Your task to perform on an android device: turn on the 24-hour format for clock Image 0: 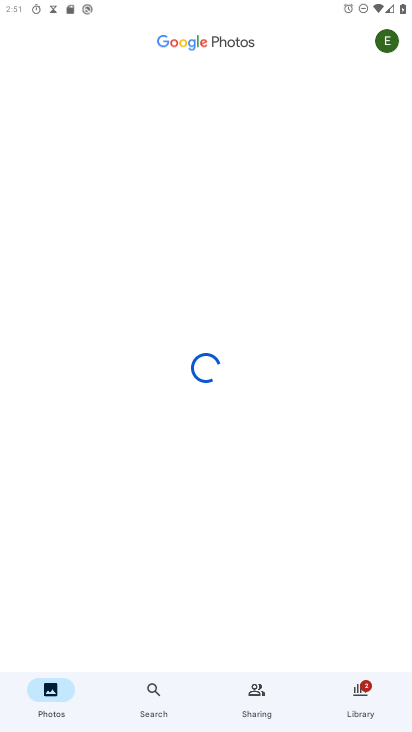
Step 0: press home button
Your task to perform on an android device: turn on the 24-hour format for clock Image 1: 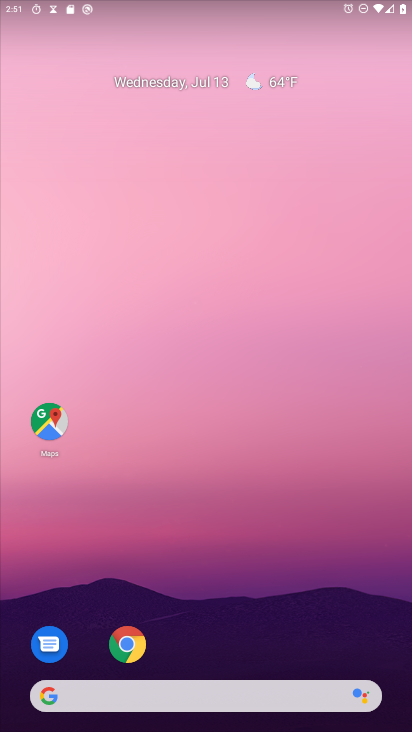
Step 1: press home button
Your task to perform on an android device: turn on the 24-hour format for clock Image 2: 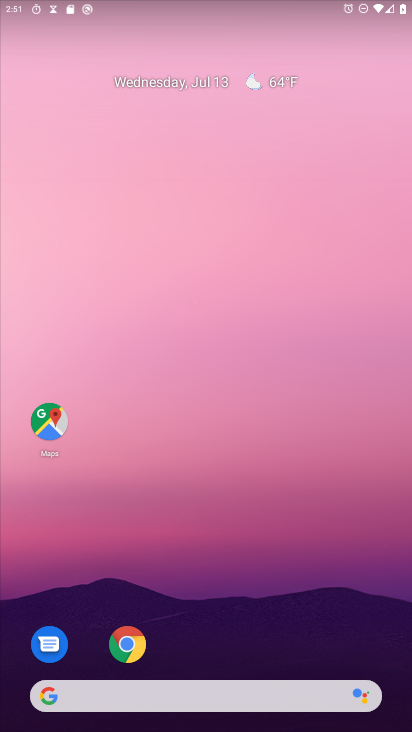
Step 2: drag from (321, 611) to (338, 44)
Your task to perform on an android device: turn on the 24-hour format for clock Image 3: 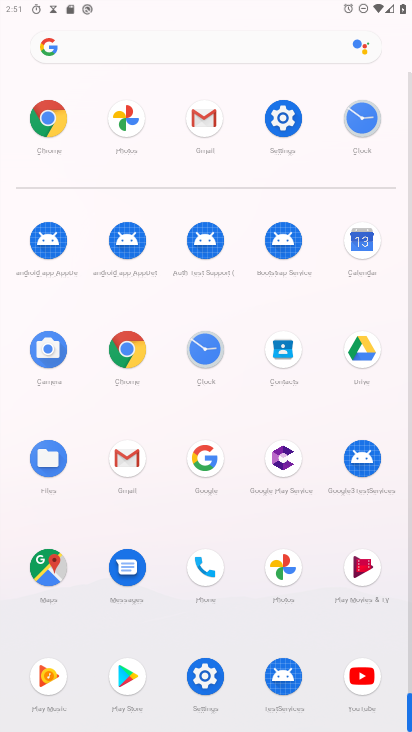
Step 3: click (364, 119)
Your task to perform on an android device: turn on the 24-hour format for clock Image 4: 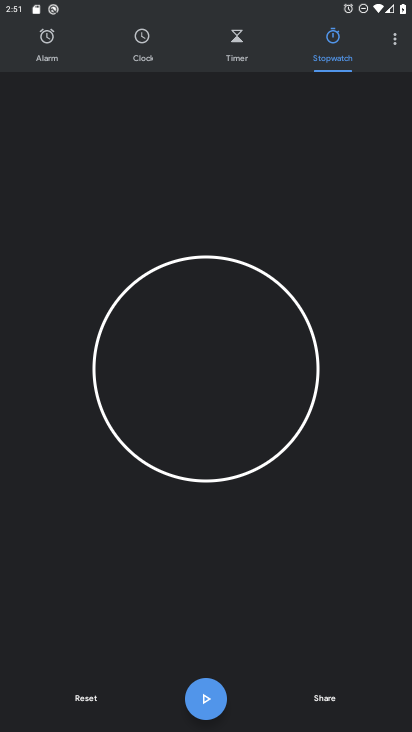
Step 4: click (390, 39)
Your task to perform on an android device: turn on the 24-hour format for clock Image 5: 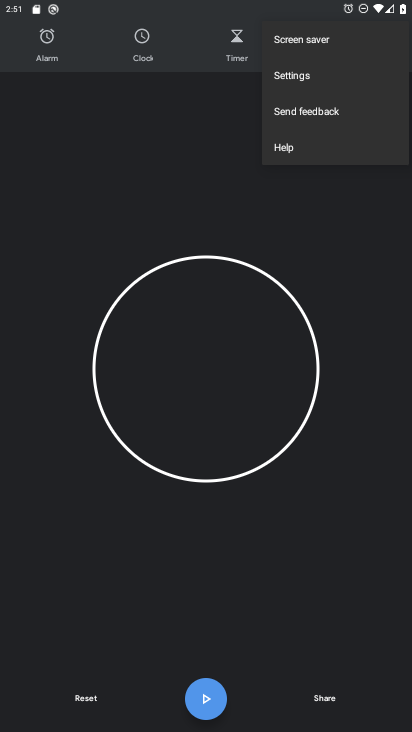
Step 5: click (292, 79)
Your task to perform on an android device: turn on the 24-hour format for clock Image 6: 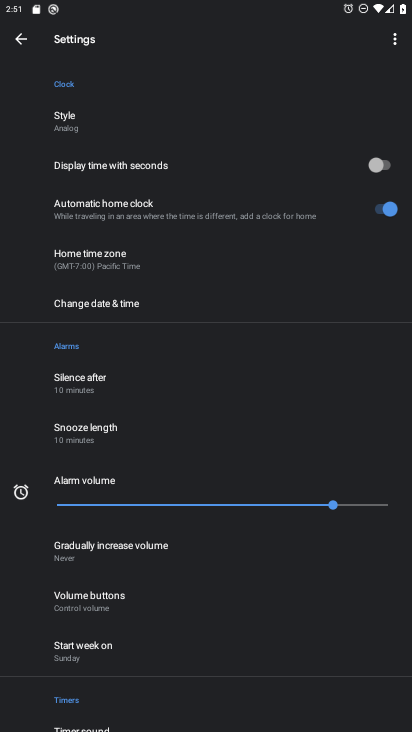
Step 6: click (105, 310)
Your task to perform on an android device: turn on the 24-hour format for clock Image 7: 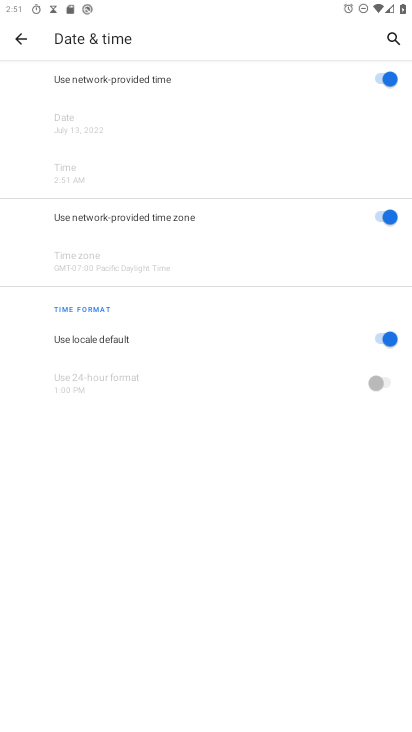
Step 7: click (382, 334)
Your task to perform on an android device: turn on the 24-hour format for clock Image 8: 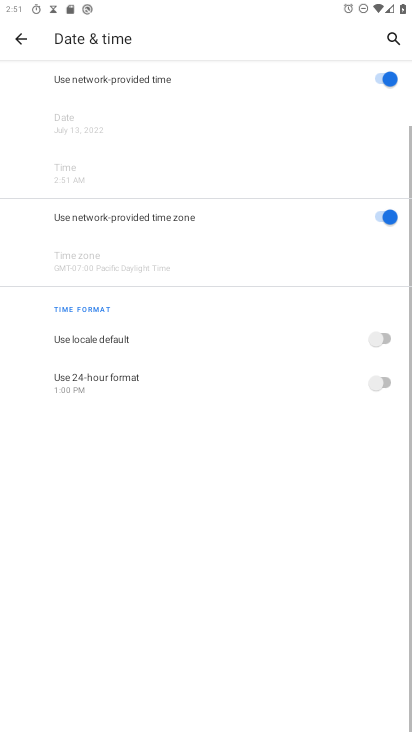
Step 8: click (378, 382)
Your task to perform on an android device: turn on the 24-hour format for clock Image 9: 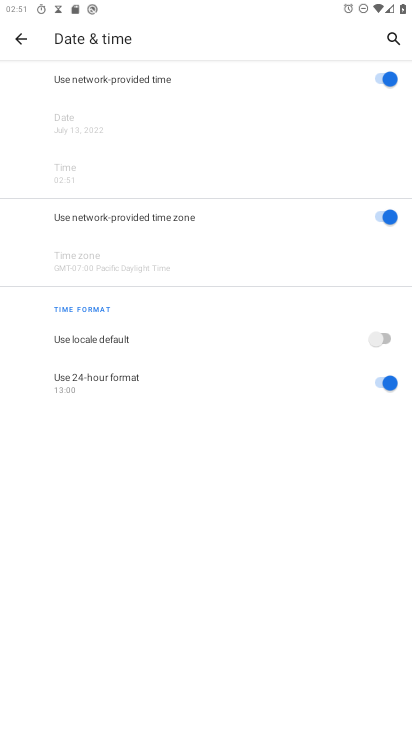
Step 9: task complete